Your task to perform on an android device: turn off airplane mode Image 0: 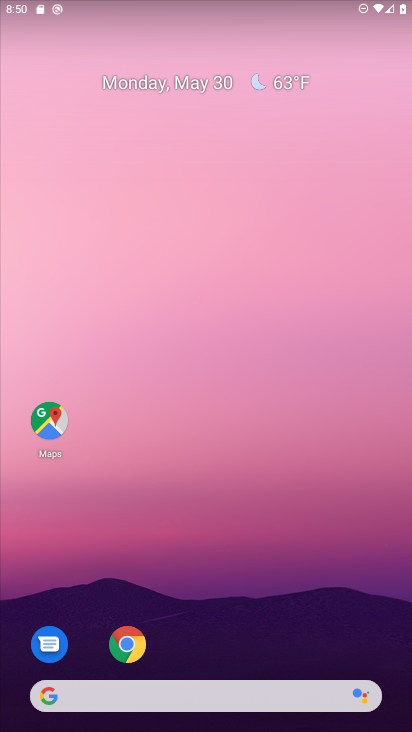
Step 0: drag from (222, 644) to (232, 123)
Your task to perform on an android device: turn off airplane mode Image 1: 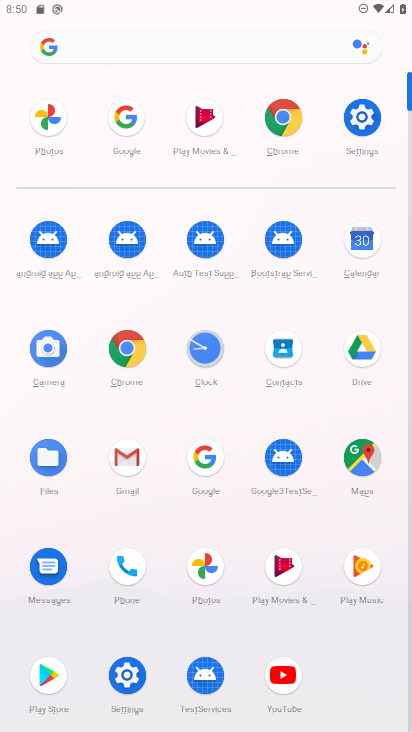
Step 1: click (362, 121)
Your task to perform on an android device: turn off airplane mode Image 2: 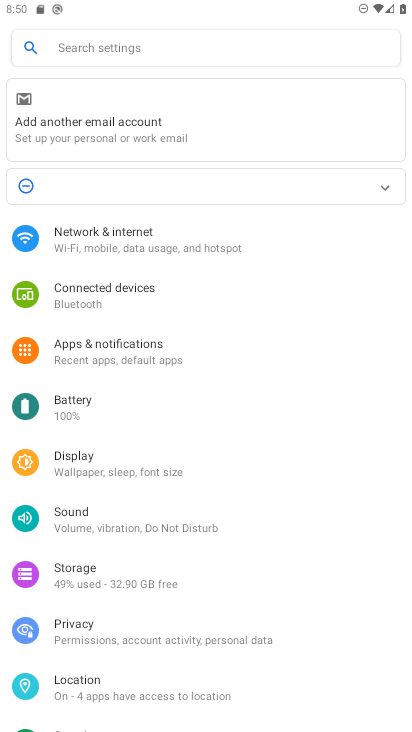
Step 2: click (154, 236)
Your task to perform on an android device: turn off airplane mode Image 3: 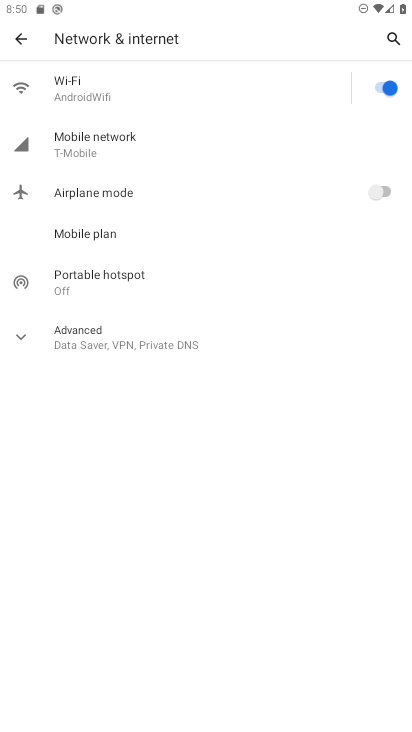
Step 3: task complete